Your task to perform on an android device: Go to Google maps Image 0: 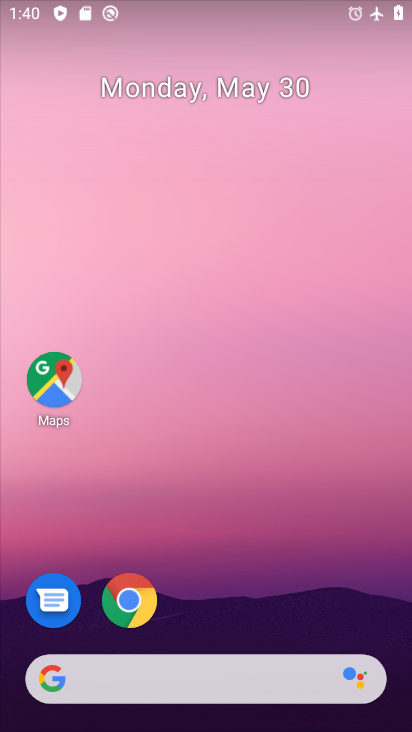
Step 0: drag from (191, 634) to (133, 59)
Your task to perform on an android device: Go to Google maps Image 1: 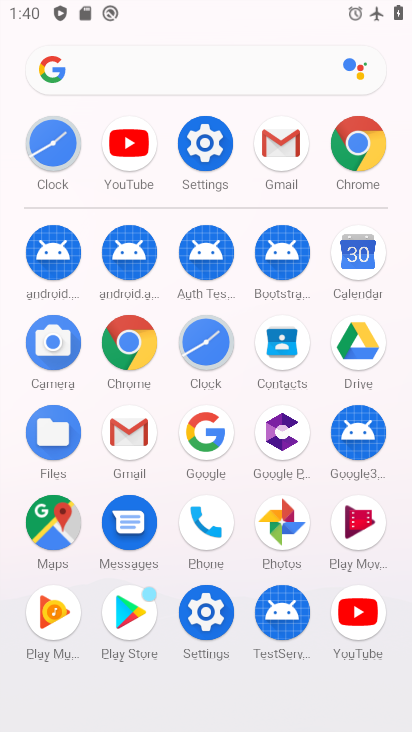
Step 1: click (44, 526)
Your task to perform on an android device: Go to Google maps Image 2: 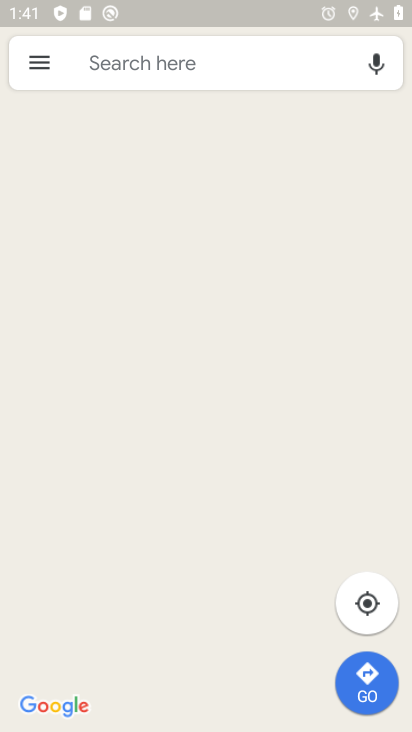
Step 2: click (35, 54)
Your task to perform on an android device: Go to Google maps Image 3: 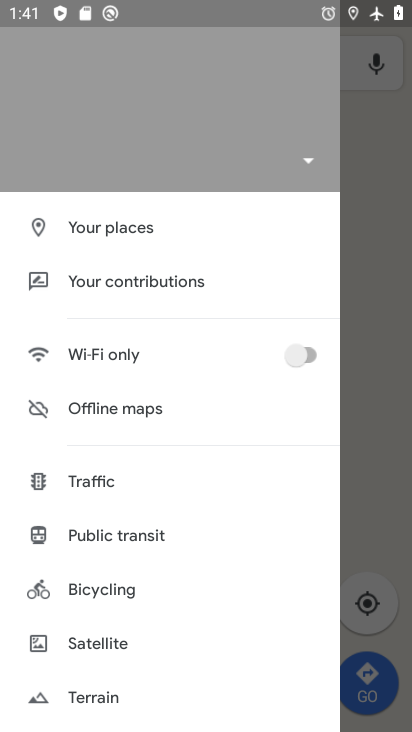
Step 3: click (335, 162)
Your task to perform on an android device: Go to Google maps Image 4: 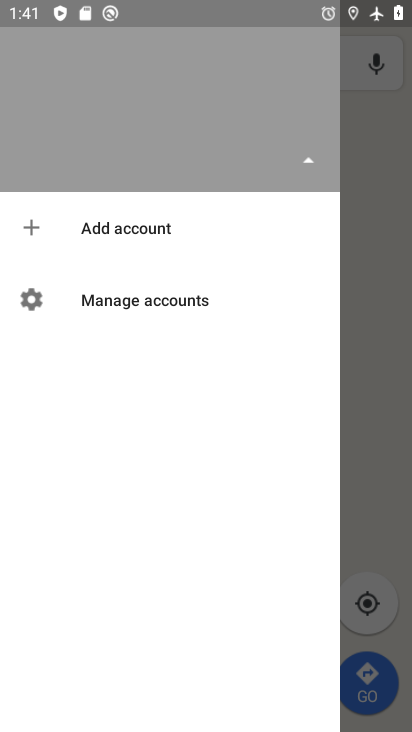
Step 4: click (350, 159)
Your task to perform on an android device: Go to Google maps Image 5: 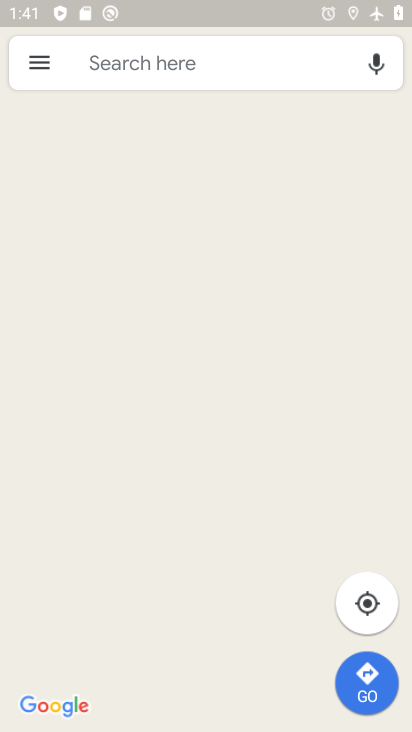
Step 5: task complete